Your task to perform on an android device: turn on location history Image 0: 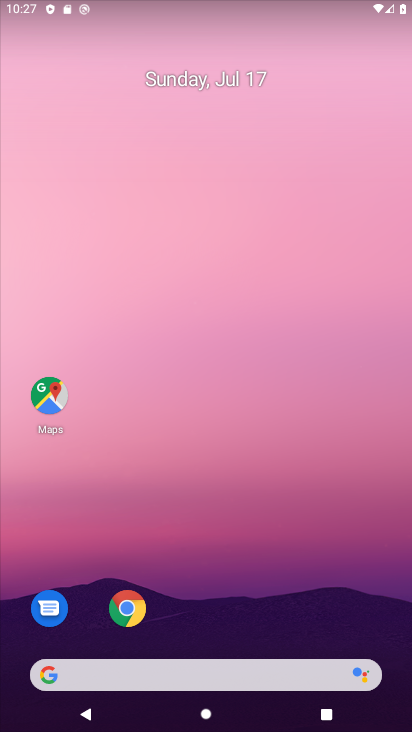
Step 0: drag from (110, 560) to (163, 176)
Your task to perform on an android device: turn on location history Image 1: 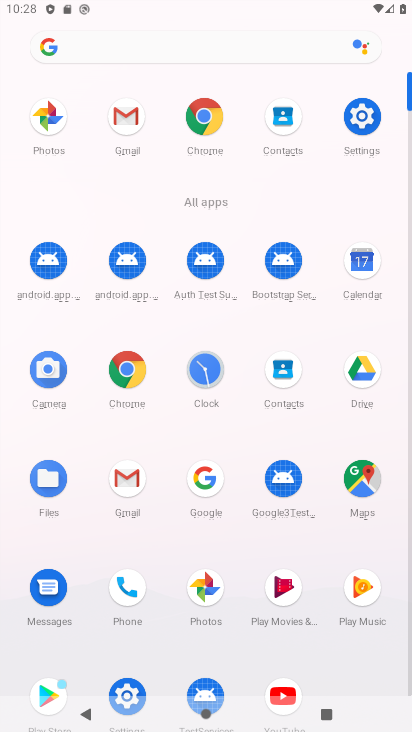
Step 1: click (136, 689)
Your task to perform on an android device: turn on location history Image 2: 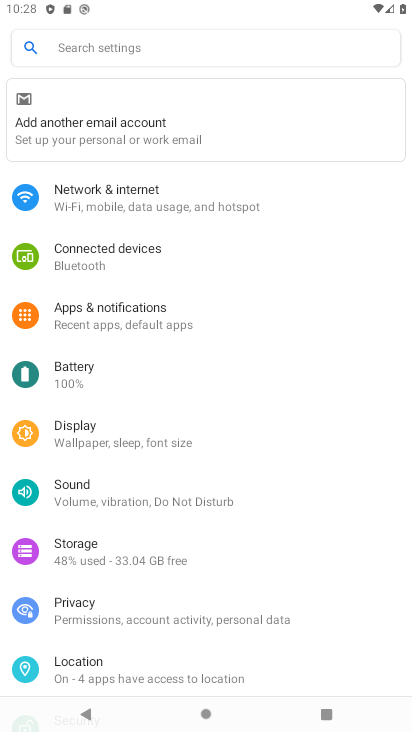
Step 2: click (107, 659)
Your task to perform on an android device: turn on location history Image 3: 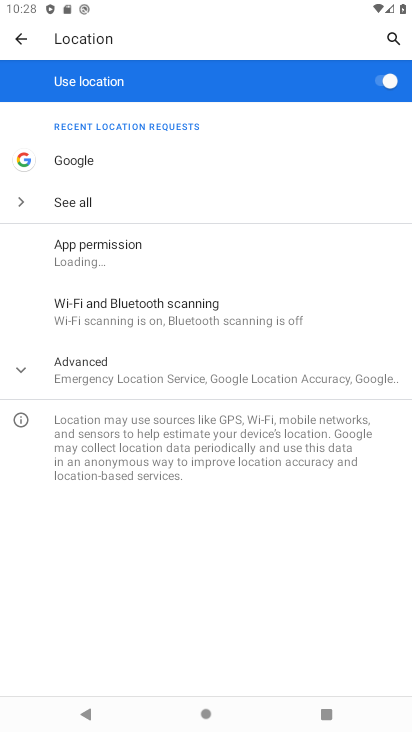
Step 3: click (118, 363)
Your task to perform on an android device: turn on location history Image 4: 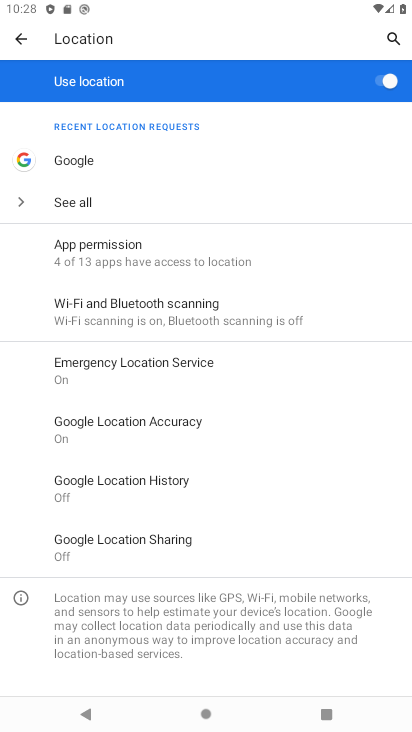
Step 4: click (118, 502)
Your task to perform on an android device: turn on location history Image 5: 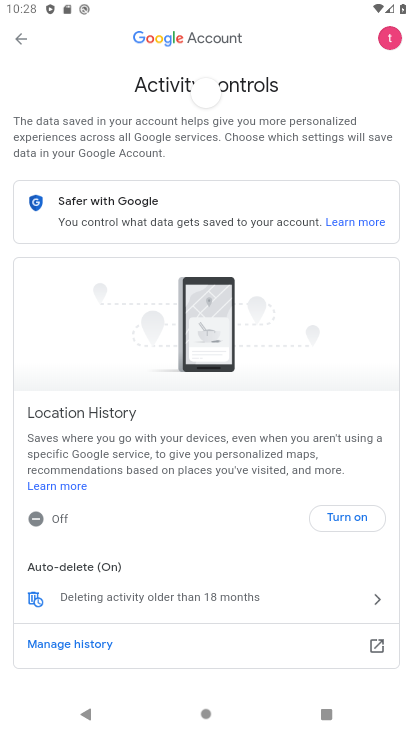
Step 5: click (346, 511)
Your task to perform on an android device: turn on location history Image 6: 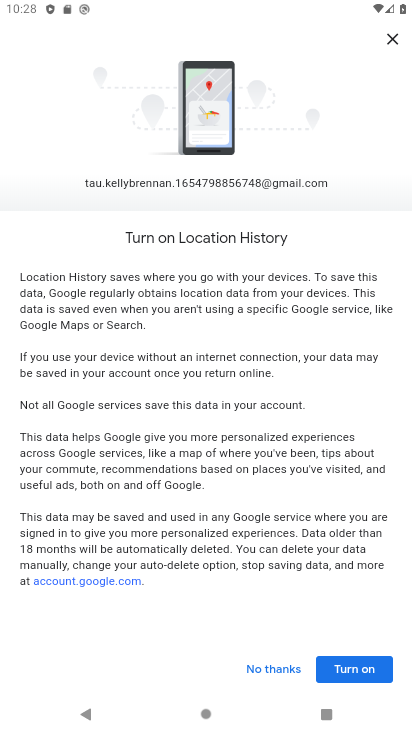
Step 6: click (364, 679)
Your task to perform on an android device: turn on location history Image 7: 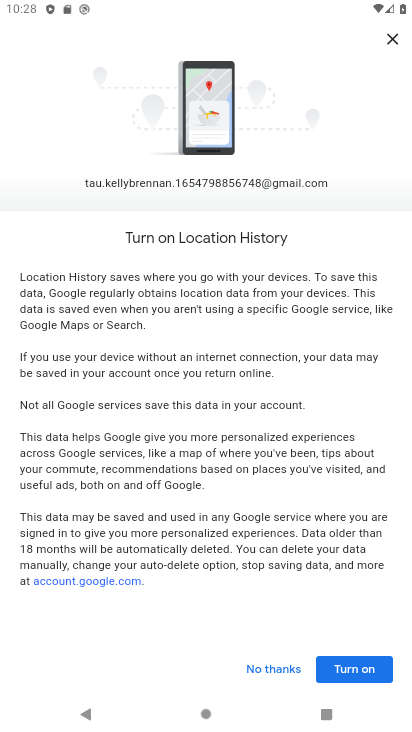
Step 7: click (371, 672)
Your task to perform on an android device: turn on location history Image 8: 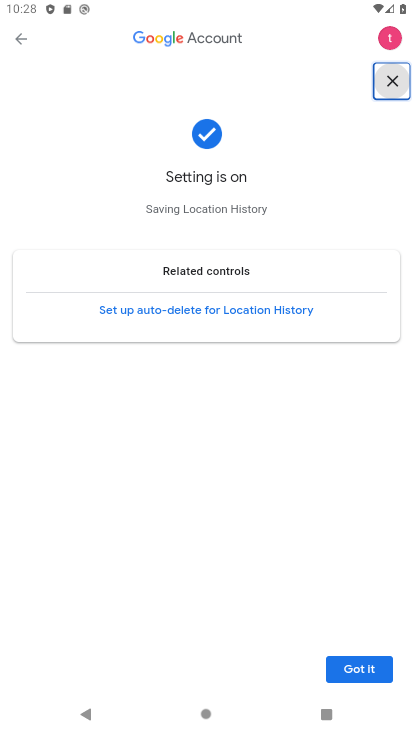
Step 8: click (369, 666)
Your task to perform on an android device: turn on location history Image 9: 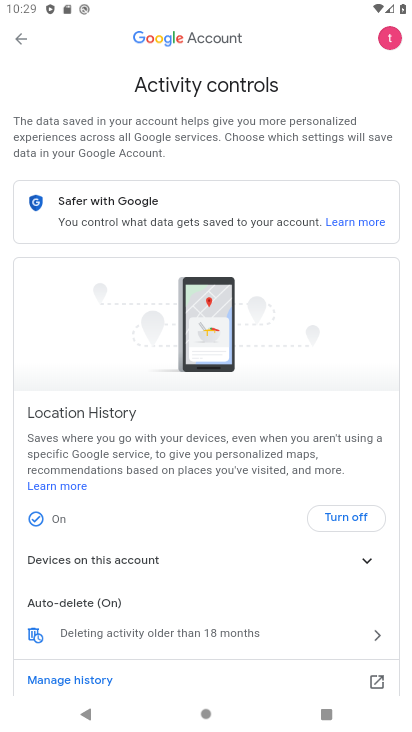
Step 9: task complete